Your task to perform on an android device: turn off priority inbox in the gmail app Image 0: 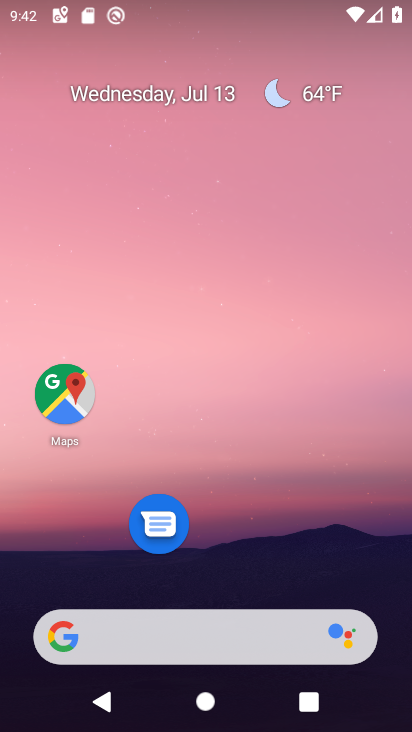
Step 0: drag from (199, 579) to (140, 4)
Your task to perform on an android device: turn off priority inbox in the gmail app Image 1: 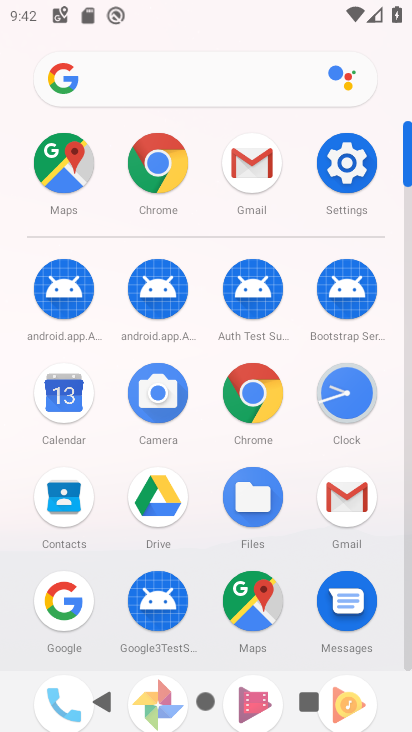
Step 1: click (346, 494)
Your task to perform on an android device: turn off priority inbox in the gmail app Image 2: 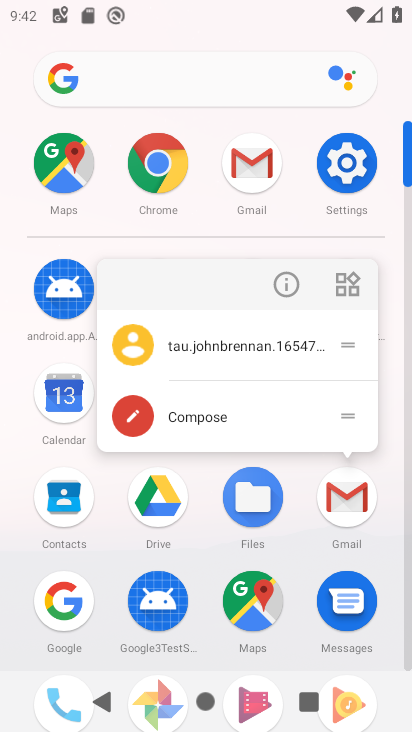
Step 2: click (346, 494)
Your task to perform on an android device: turn off priority inbox in the gmail app Image 3: 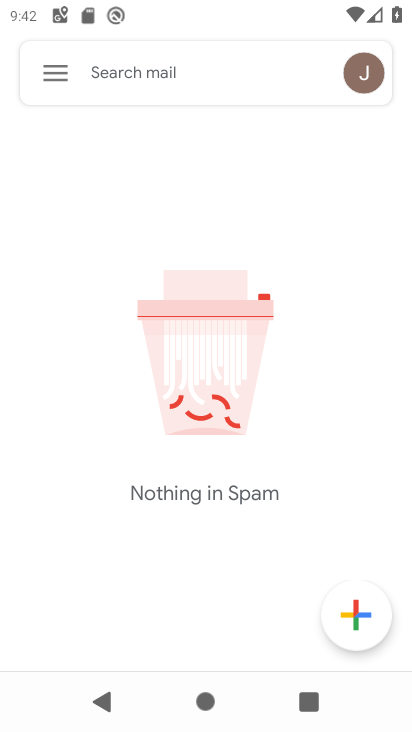
Step 3: click (44, 75)
Your task to perform on an android device: turn off priority inbox in the gmail app Image 4: 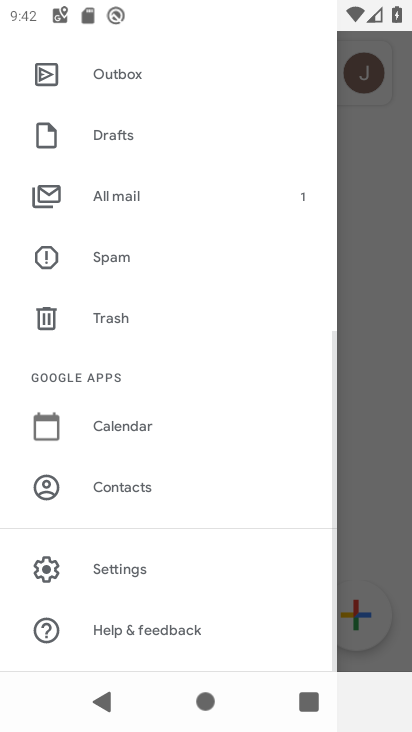
Step 4: click (134, 559)
Your task to perform on an android device: turn off priority inbox in the gmail app Image 5: 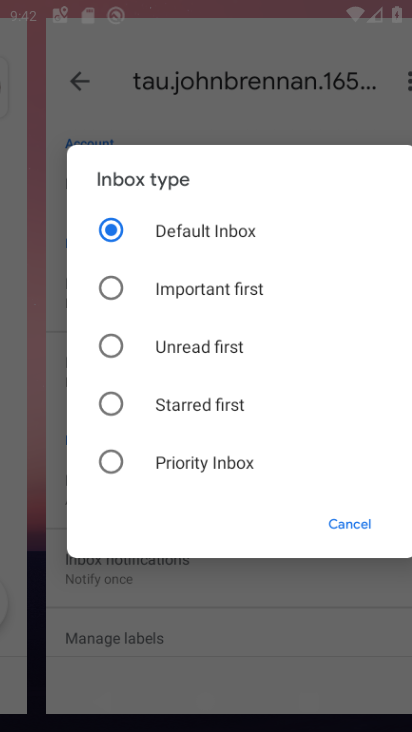
Step 5: task complete